Your task to perform on an android device: allow cookies in the chrome app Image 0: 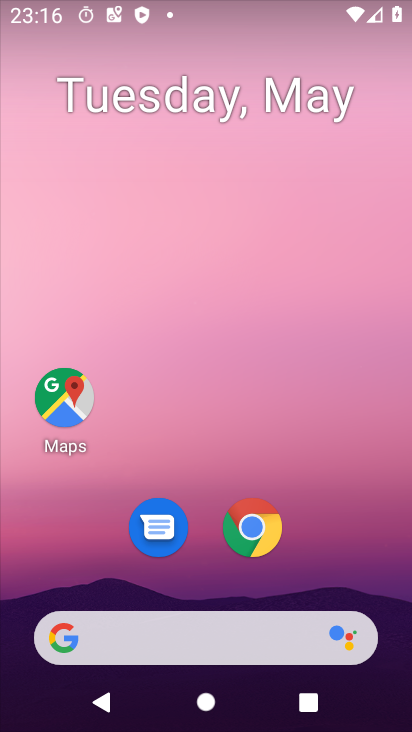
Step 0: drag from (196, 557) to (183, 18)
Your task to perform on an android device: allow cookies in the chrome app Image 1: 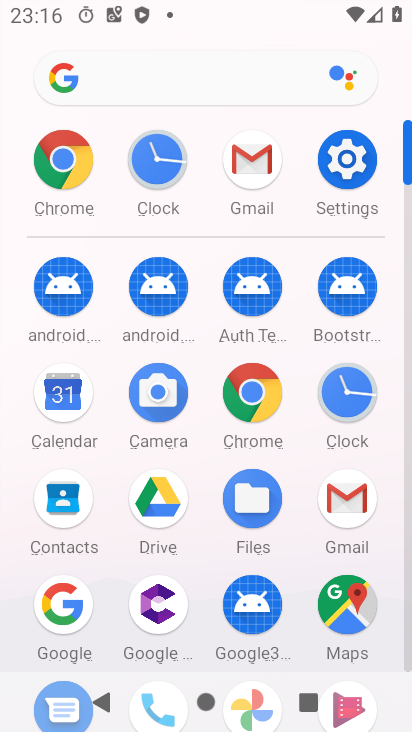
Step 1: click (254, 392)
Your task to perform on an android device: allow cookies in the chrome app Image 2: 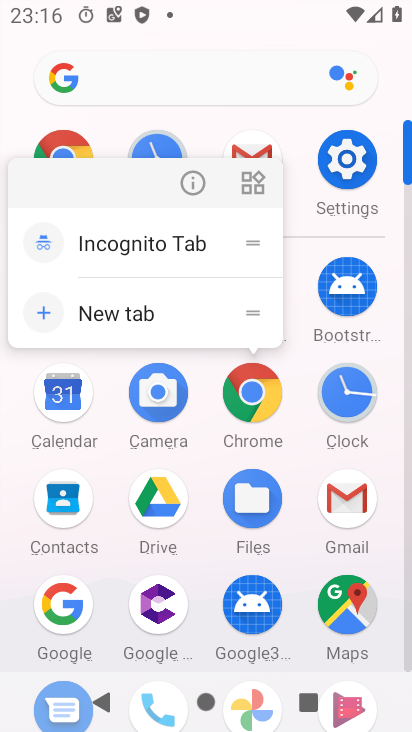
Step 2: click (184, 176)
Your task to perform on an android device: allow cookies in the chrome app Image 3: 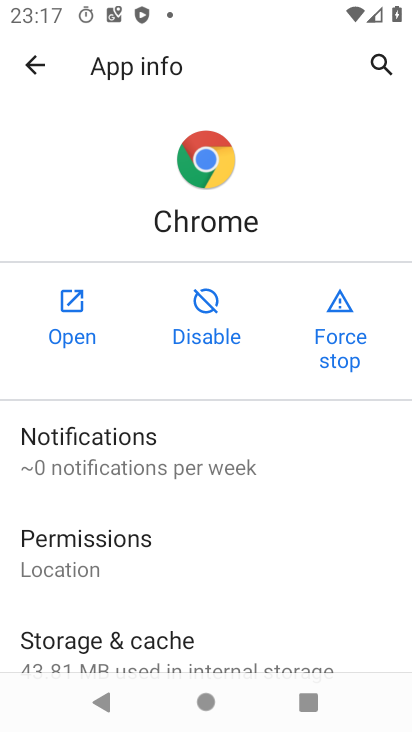
Step 3: click (72, 305)
Your task to perform on an android device: allow cookies in the chrome app Image 4: 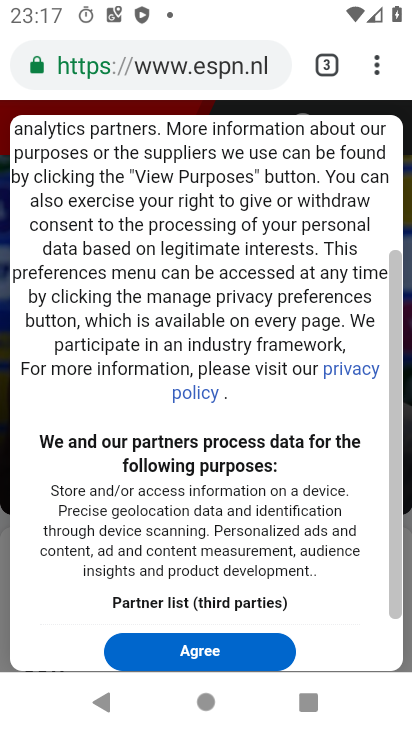
Step 4: click (201, 638)
Your task to perform on an android device: allow cookies in the chrome app Image 5: 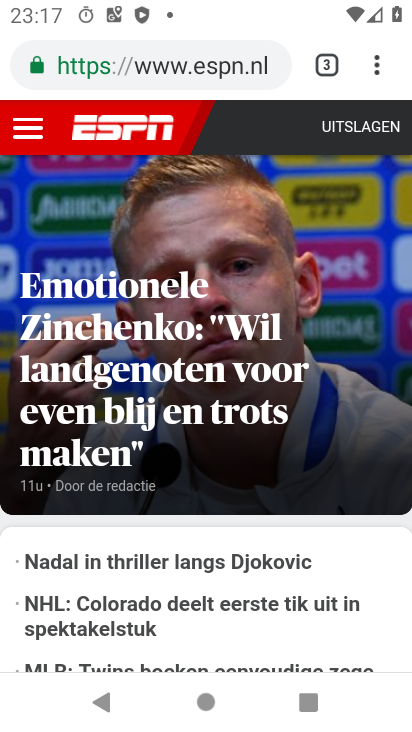
Step 5: drag from (380, 68) to (169, 585)
Your task to perform on an android device: allow cookies in the chrome app Image 6: 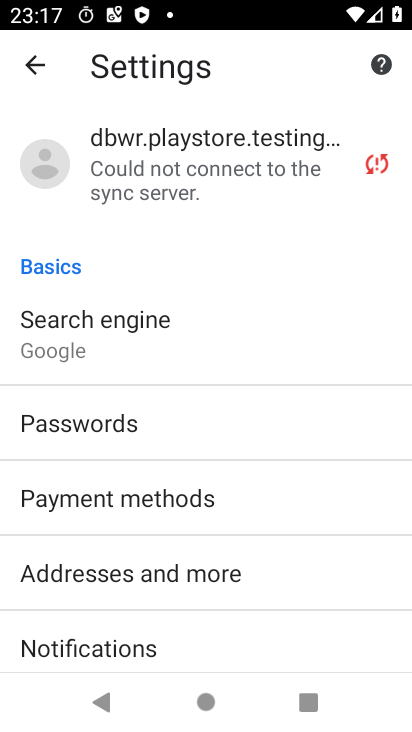
Step 6: drag from (224, 645) to (208, 186)
Your task to perform on an android device: allow cookies in the chrome app Image 7: 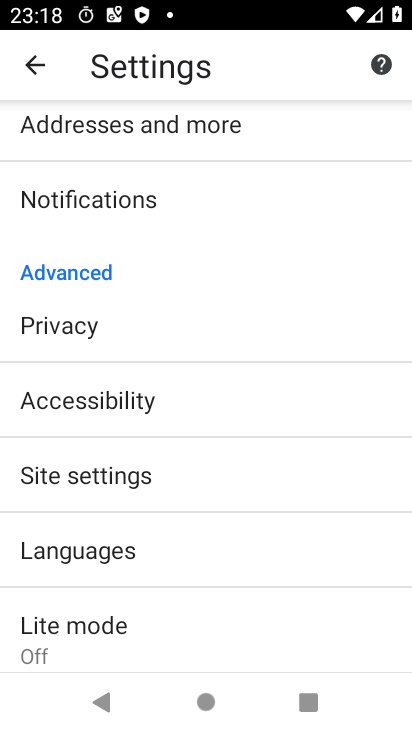
Step 7: click (131, 467)
Your task to perform on an android device: allow cookies in the chrome app Image 8: 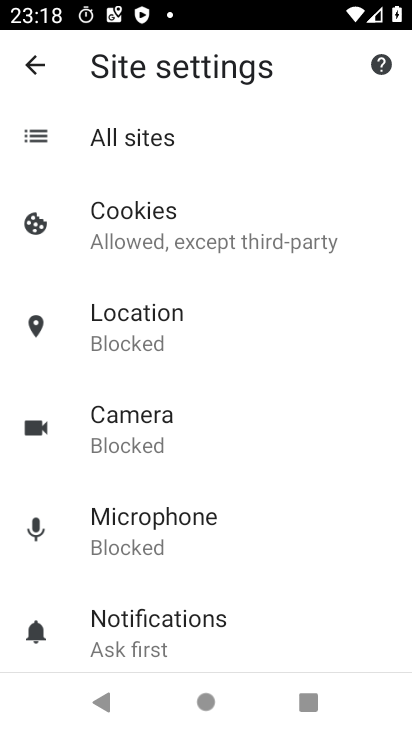
Step 8: drag from (232, 517) to (304, 187)
Your task to perform on an android device: allow cookies in the chrome app Image 9: 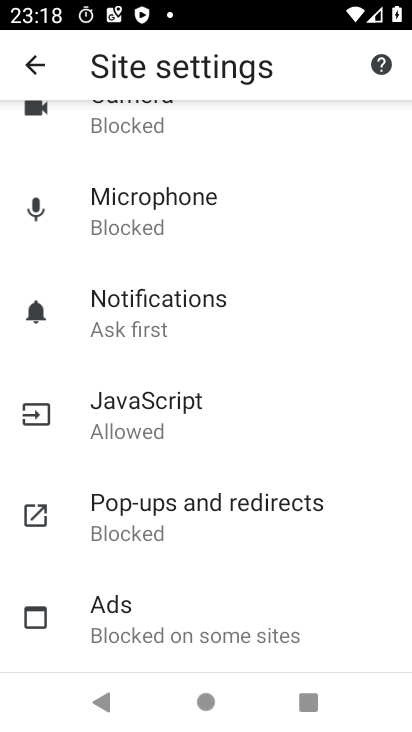
Step 9: drag from (178, 230) to (185, 730)
Your task to perform on an android device: allow cookies in the chrome app Image 10: 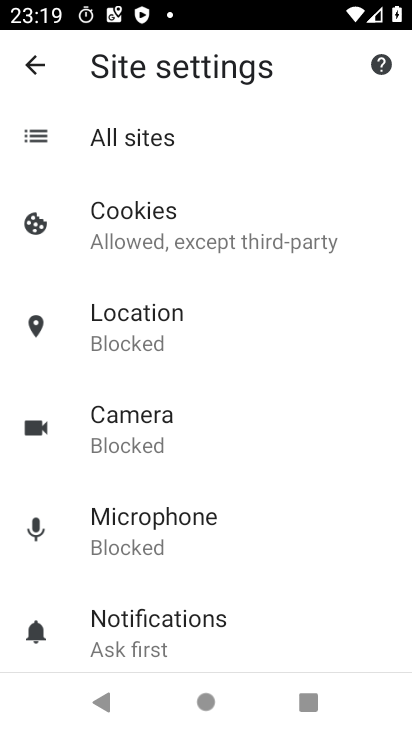
Step 10: drag from (190, 306) to (183, 579)
Your task to perform on an android device: allow cookies in the chrome app Image 11: 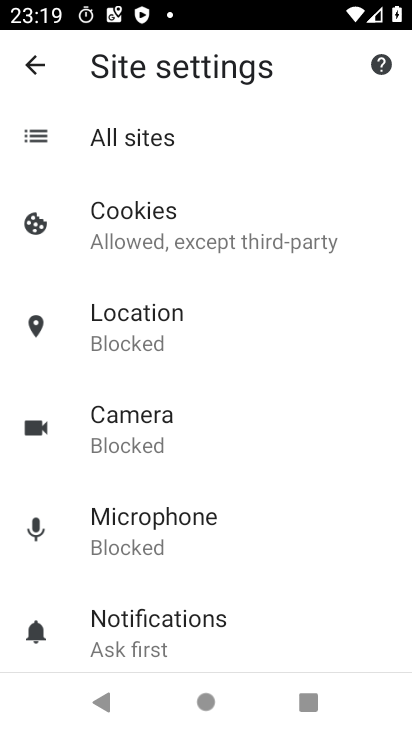
Step 11: click (172, 223)
Your task to perform on an android device: allow cookies in the chrome app Image 12: 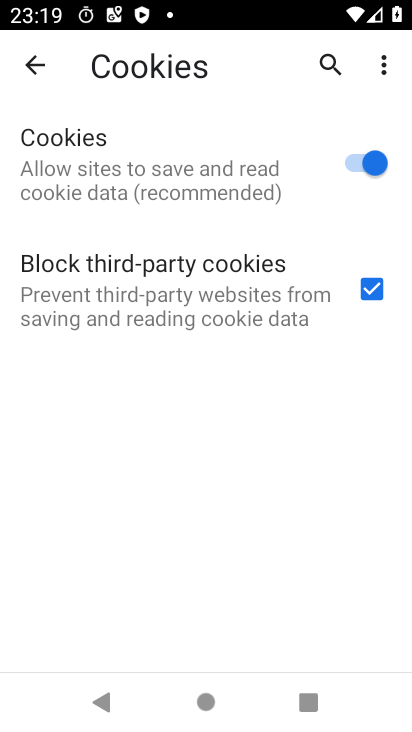
Step 12: task complete